Your task to perform on an android device: refresh tabs in the chrome app Image 0: 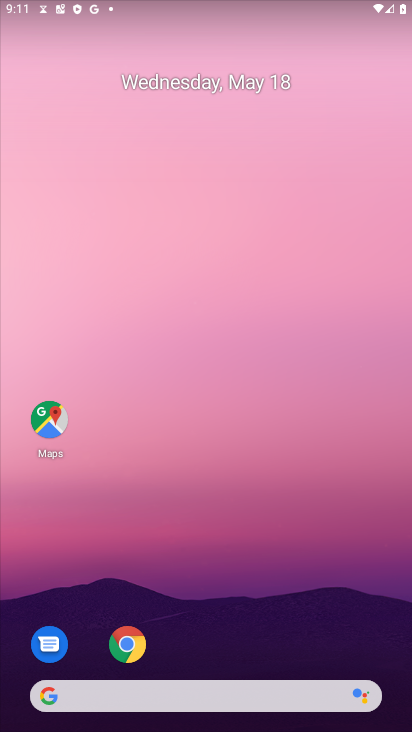
Step 0: click (126, 647)
Your task to perform on an android device: refresh tabs in the chrome app Image 1: 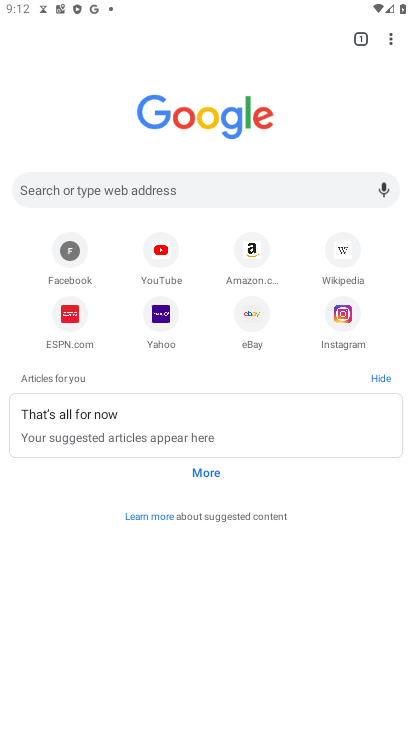
Step 1: click (392, 40)
Your task to perform on an android device: refresh tabs in the chrome app Image 2: 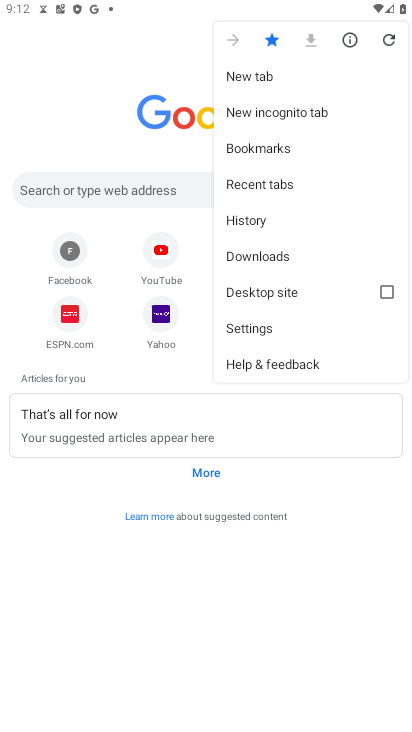
Step 2: click (392, 40)
Your task to perform on an android device: refresh tabs in the chrome app Image 3: 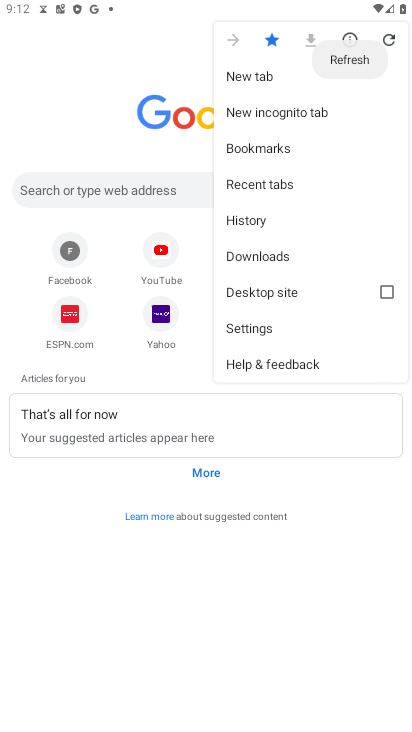
Step 3: click (392, 41)
Your task to perform on an android device: refresh tabs in the chrome app Image 4: 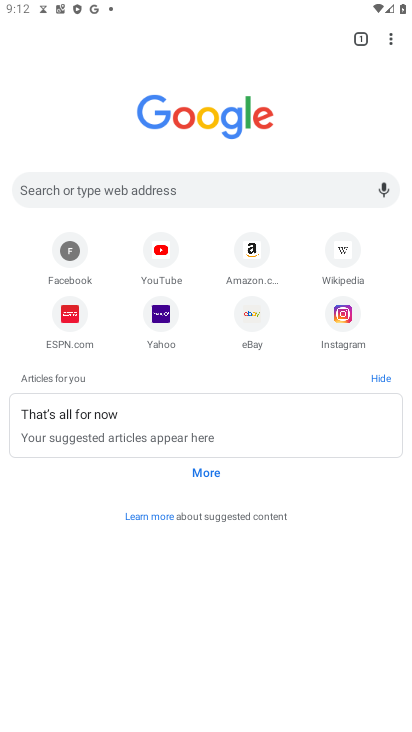
Step 4: task complete